Your task to perform on an android device: allow notifications from all sites in the chrome app Image 0: 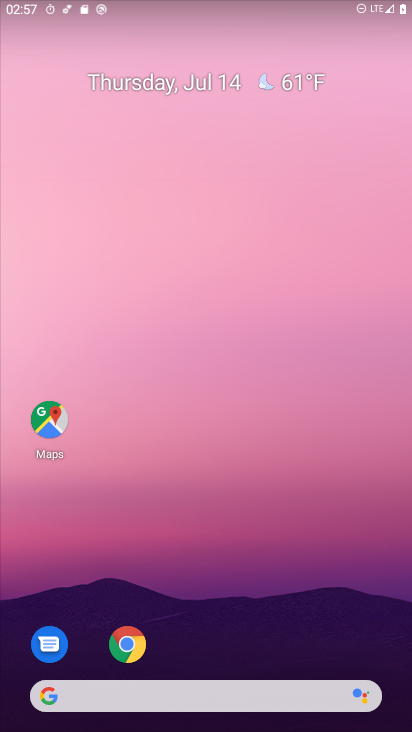
Step 0: drag from (359, 602) to (295, 10)
Your task to perform on an android device: allow notifications from all sites in the chrome app Image 1: 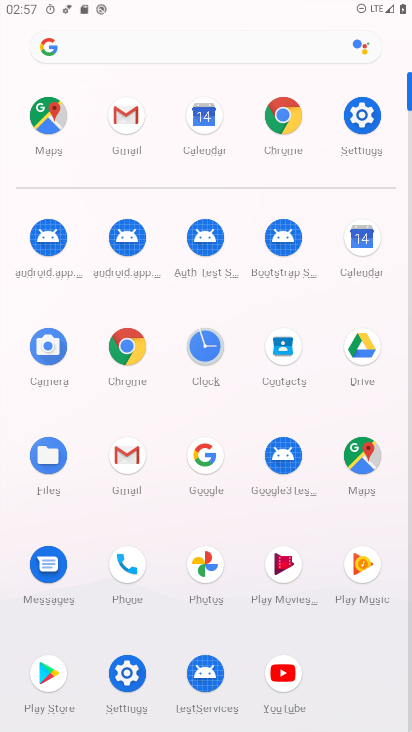
Step 1: click (284, 113)
Your task to perform on an android device: allow notifications from all sites in the chrome app Image 2: 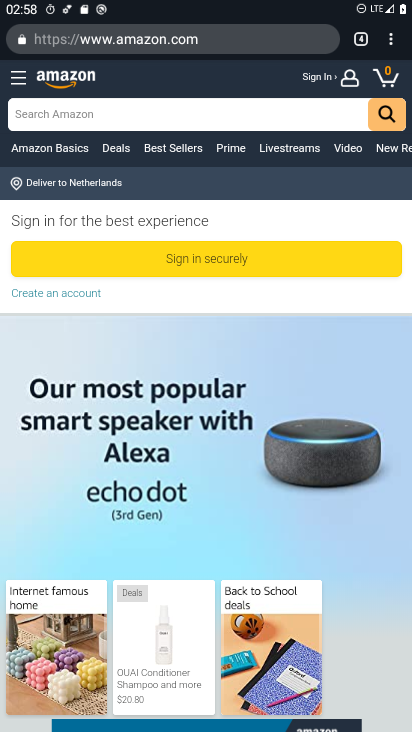
Step 2: drag from (391, 35) to (261, 471)
Your task to perform on an android device: allow notifications from all sites in the chrome app Image 3: 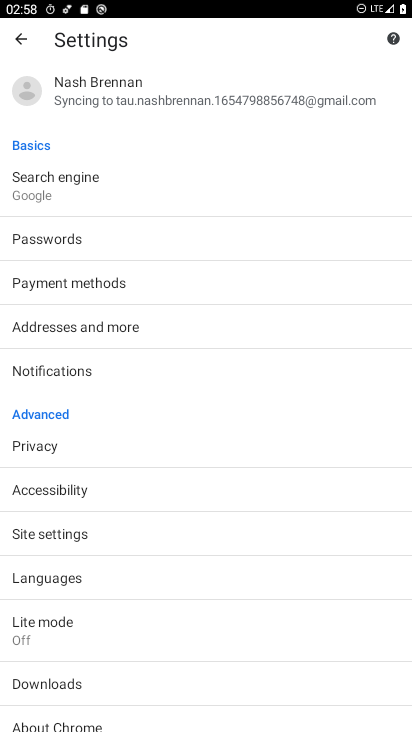
Step 3: click (71, 533)
Your task to perform on an android device: allow notifications from all sites in the chrome app Image 4: 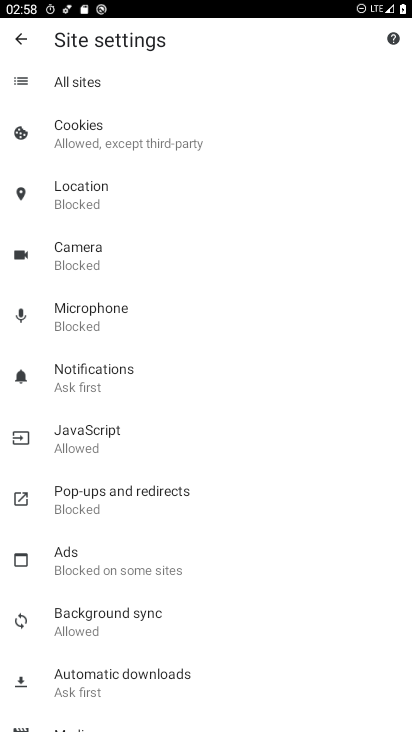
Step 4: drag from (140, 666) to (160, 224)
Your task to perform on an android device: allow notifications from all sites in the chrome app Image 5: 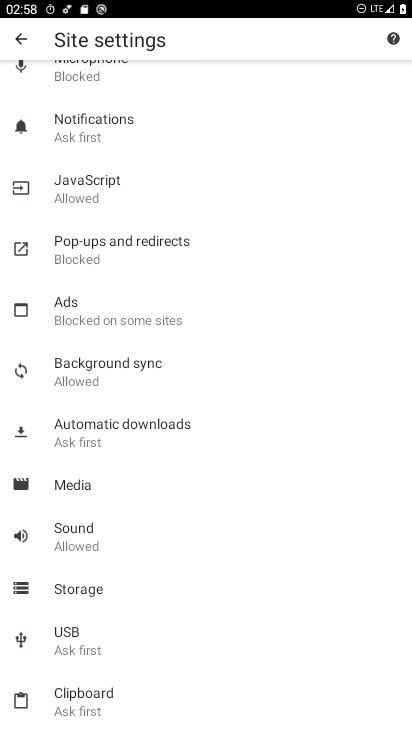
Step 5: drag from (163, 230) to (161, 724)
Your task to perform on an android device: allow notifications from all sites in the chrome app Image 6: 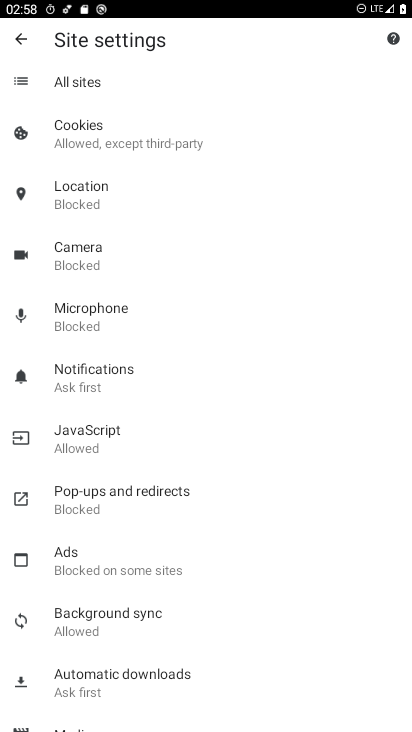
Step 6: click (114, 367)
Your task to perform on an android device: allow notifications from all sites in the chrome app Image 7: 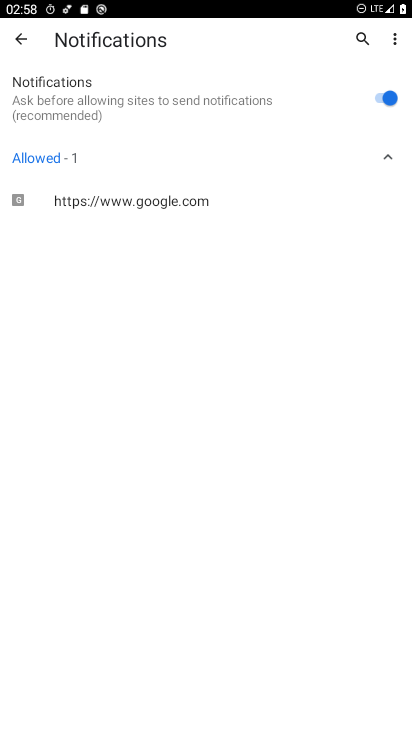
Step 7: task complete